Your task to perform on an android device: add a contact in the contacts app Image 0: 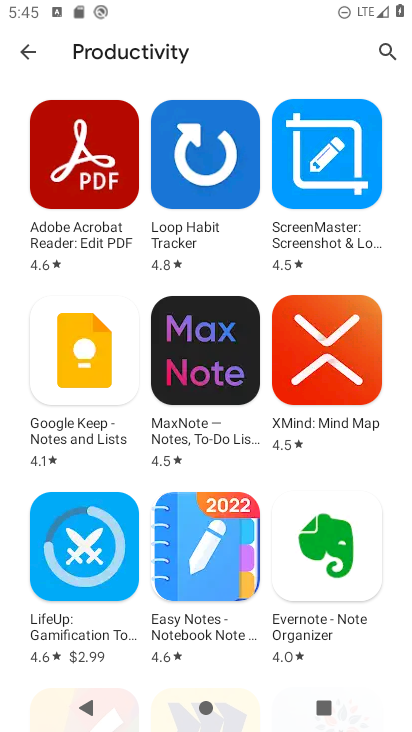
Step 0: press home button
Your task to perform on an android device: add a contact in the contacts app Image 1: 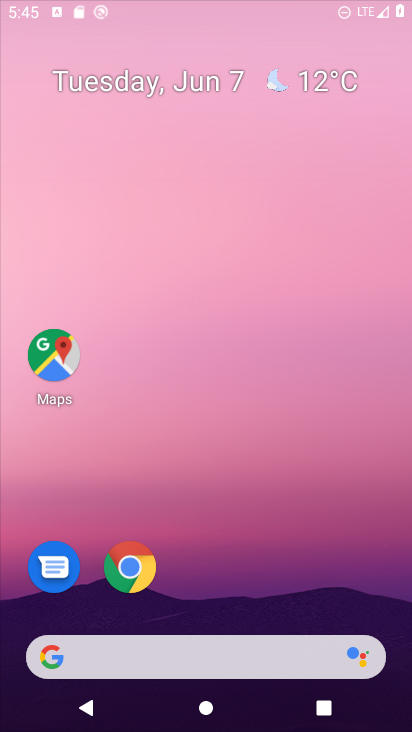
Step 1: drag from (369, 663) to (334, 5)
Your task to perform on an android device: add a contact in the contacts app Image 2: 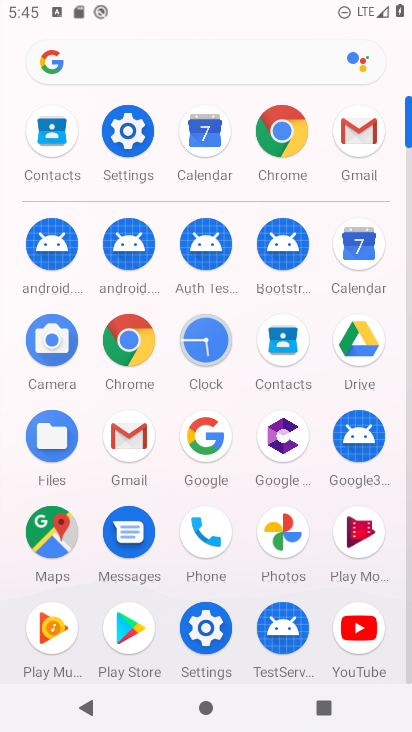
Step 2: click (270, 349)
Your task to perform on an android device: add a contact in the contacts app Image 3: 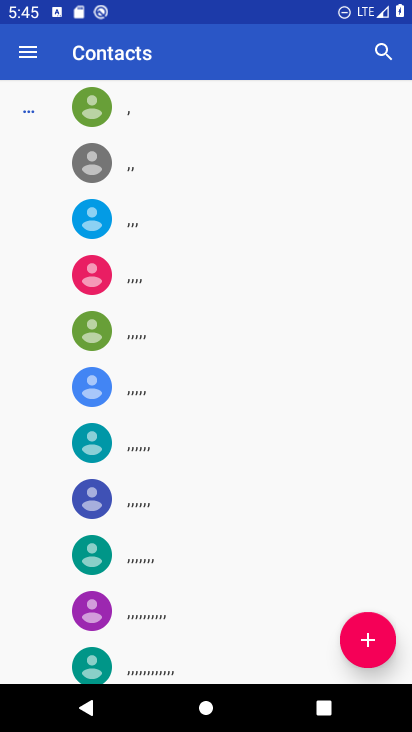
Step 3: click (379, 640)
Your task to perform on an android device: add a contact in the contacts app Image 4: 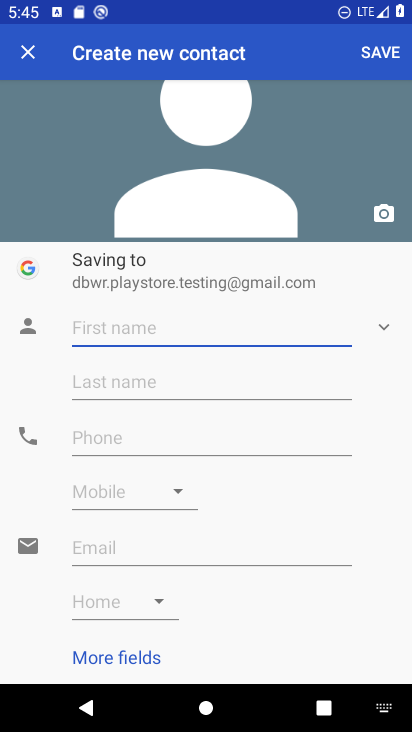
Step 4: type "hjfgdxdf"
Your task to perform on an android device: add a contact in the contacts app Image 5: 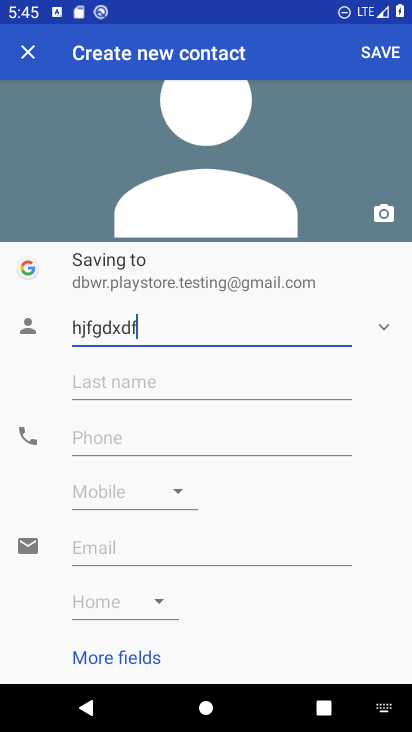
Step 5: click (212, 455)
Your task to perform on an android device: add a contact in the contacts app Image 6: 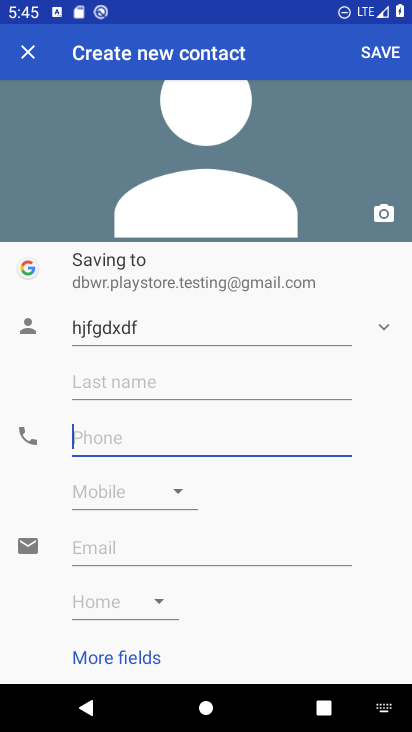
Step 6: click (250, 448)
Your task to perform on an android device: add a contact in the contacts app Image 7: 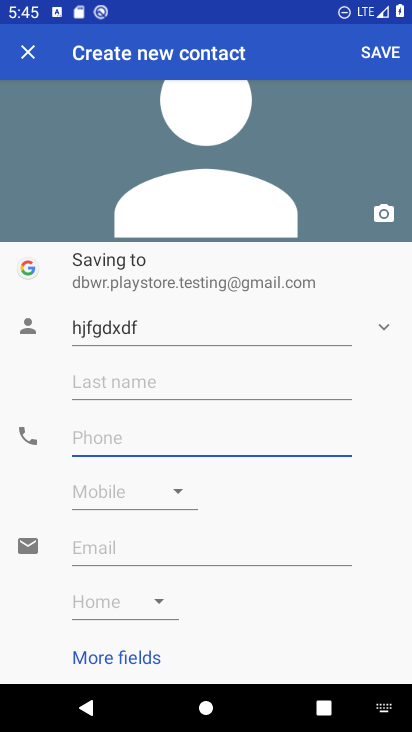
Step 7: type "9876678979"
Your task to perform on an android device: add a contact in the contacts app Image 8: 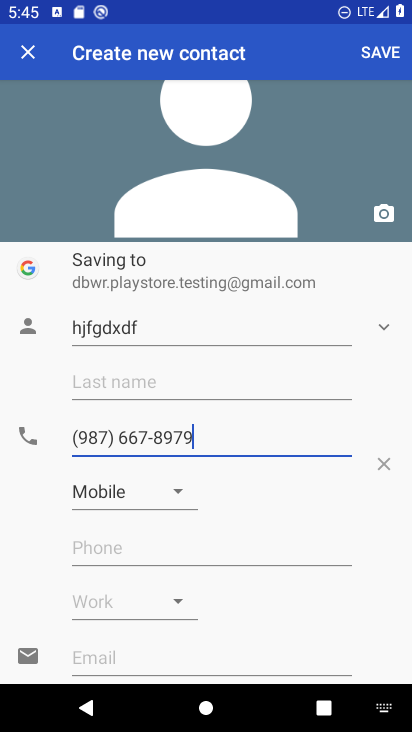
Step 8: click (390, 44)
Your task to perform on an android device: add a contact in the contacts app Image 9: 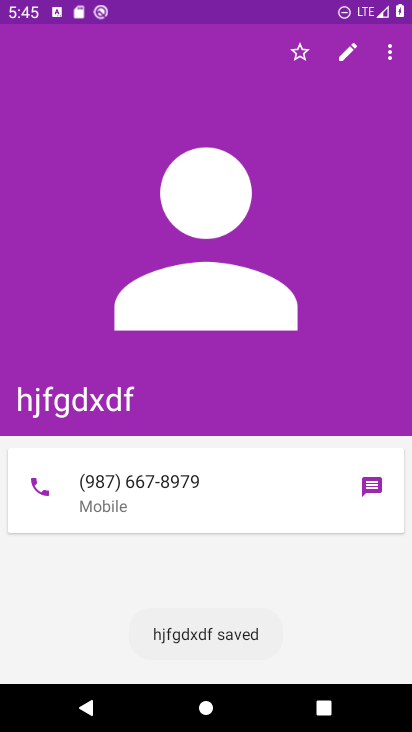
Step 9: task complete